Your task to perform on an android device: Go to settings Image 0: 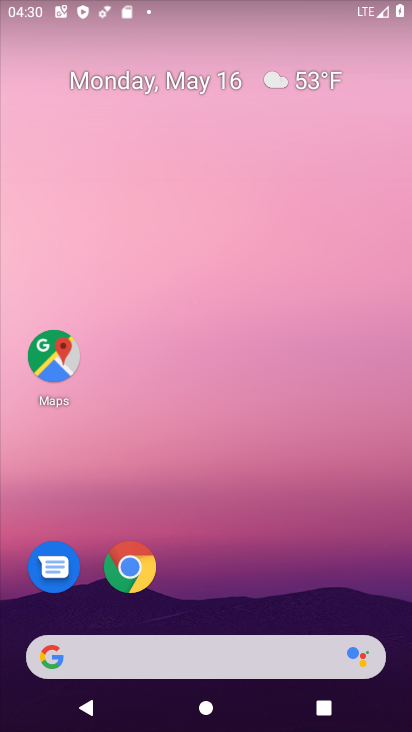
Step 0: drag from (309, 640) to (236, 52)
Your task to perform on an android device: Go to settings Image 1: 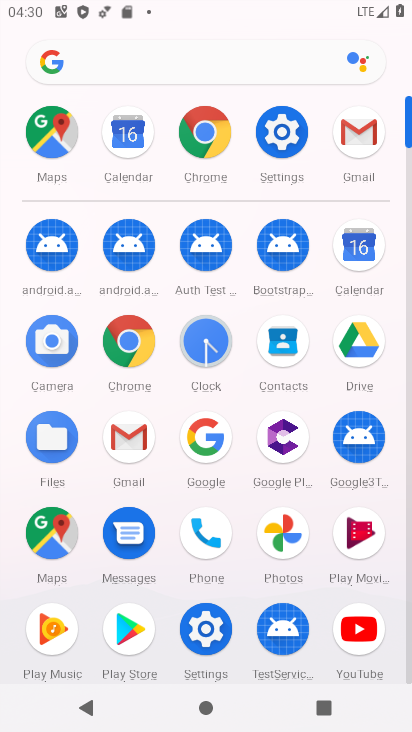
Step 1: click (286, 143)
Your task to perform on an android device: Go to settings Image 2: 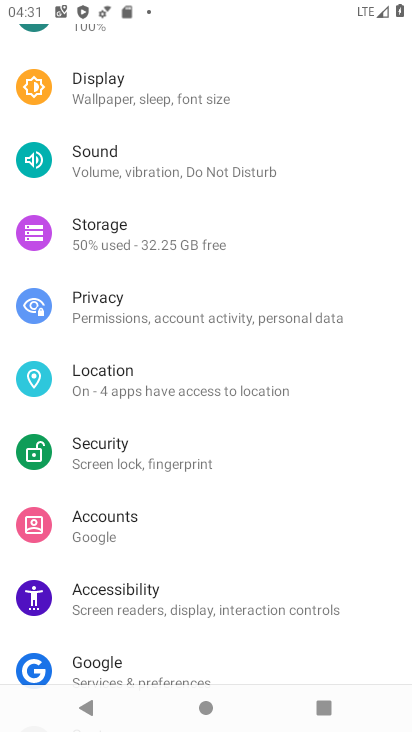
Step 2: task complete